Your task to perform on an android device: turn on translation in the chrome app Image 0: 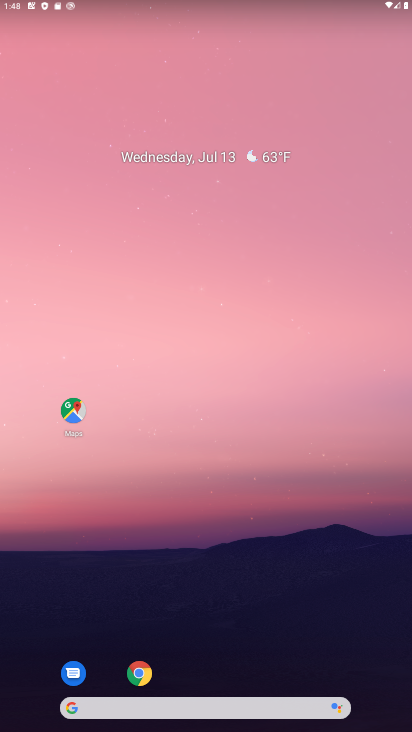
Step 0: drag from (166, 683) to (211, 243)
Your task to perform on an android device: turn on translation in the chrome app Image 1: 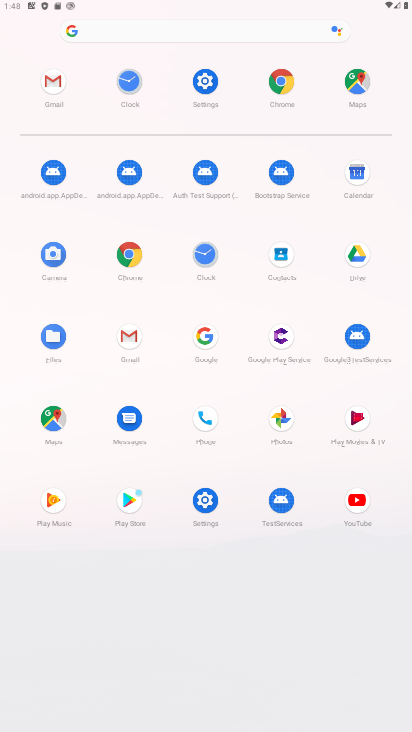
Step 1: click (283, 77)
Your task to perform on an android device: turn on translation in the chrome app Image 2: 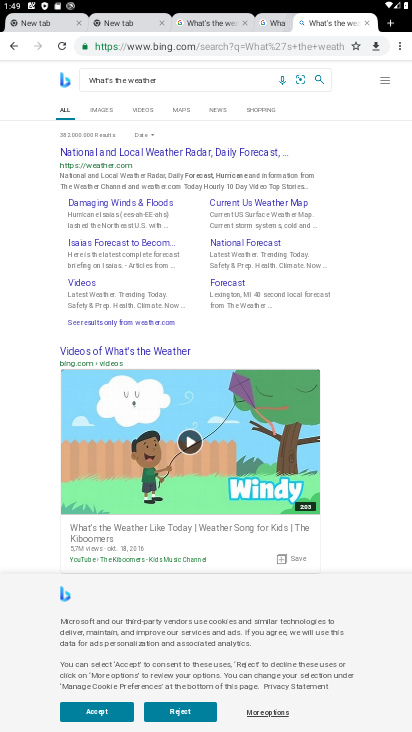
Step 2: click (405, 43)
Your task to perform on an android device: turn on translation in the chrome app Image 3: 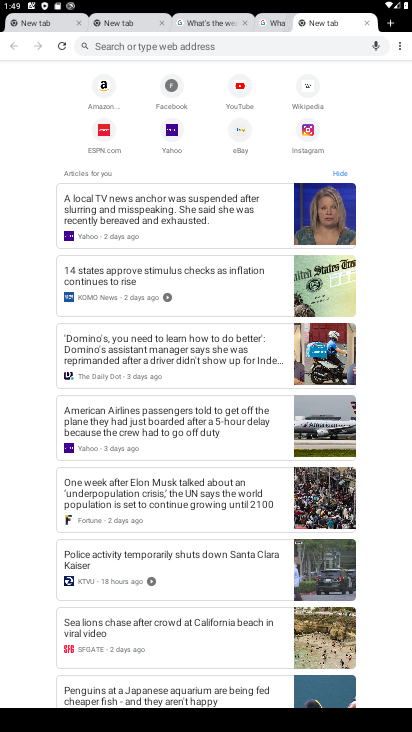
Step 3: click (396, 45)
Your task to perform on an android device: turn on translation in the chrome app Image 4: 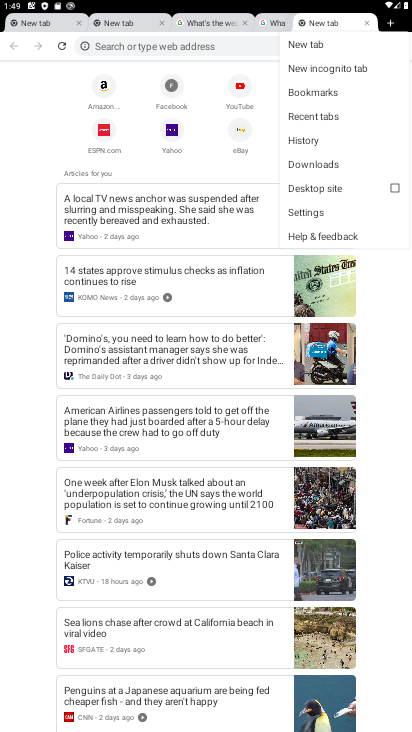
Step 4: click (319, 217)
Your task to perform on an android device: turn on translation in the chrome app Image 5: 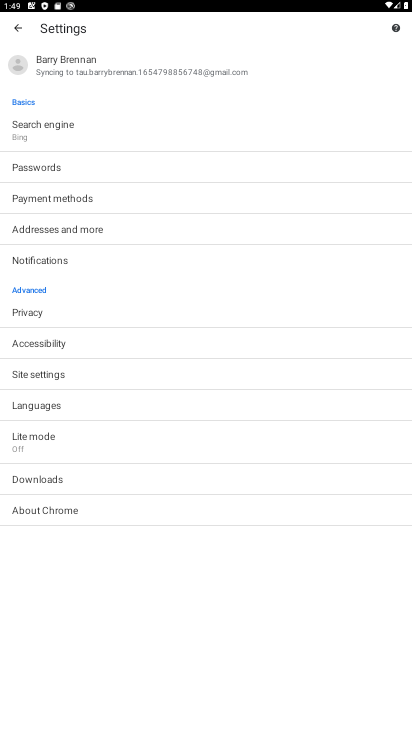
Step 5: click (49, 401)
Your task to perform on an android device: turn on translation in the chrome app Image 6: 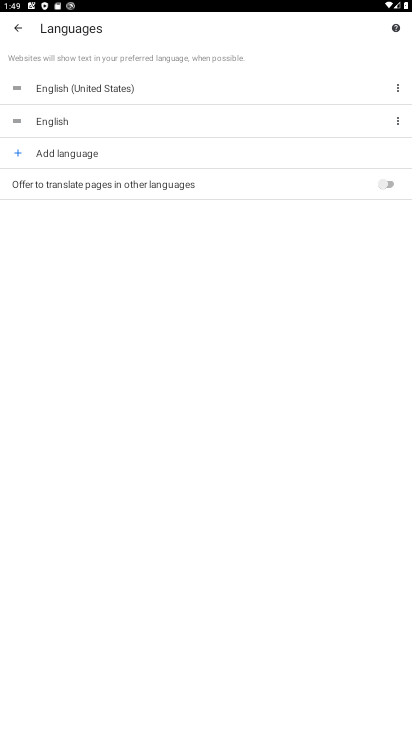
Step 6: click (393, 184)
Your task to perform on an android device: turn on translation in the chrome app Image 7: 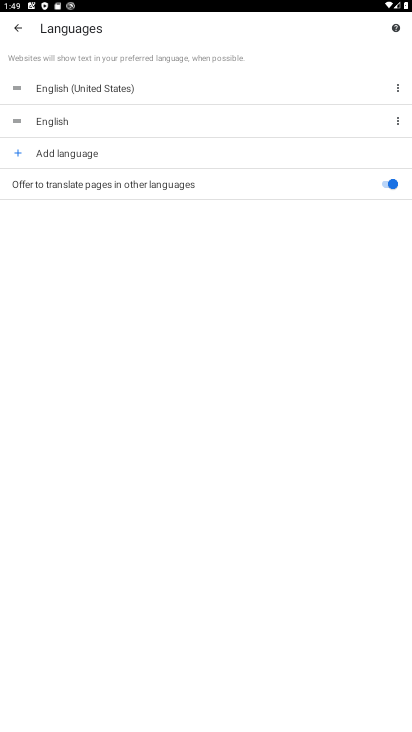
Step 7: task complete